Your task to perform on an android device: check out phone information Image 0: 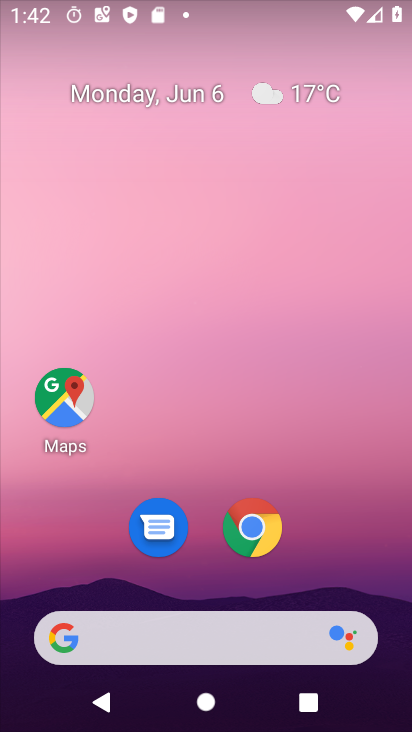
Step 0: drag from (222, 721) to (228, 43)
Your task to perform on an android device: check out phone information Image 1: 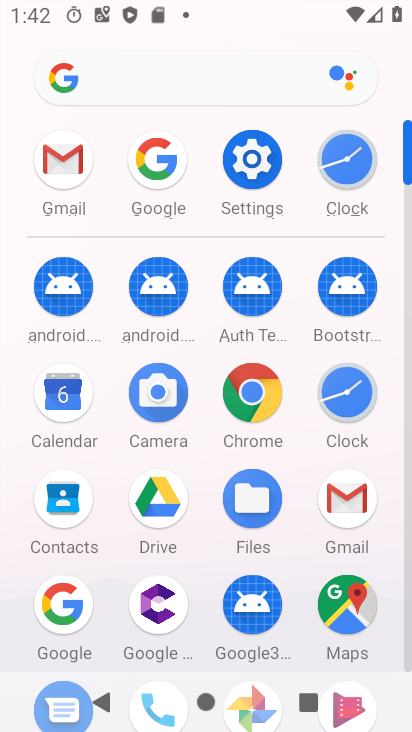
Step 1: click (250, 167)
Your task to perform on an android device: check out phone information Image 2: 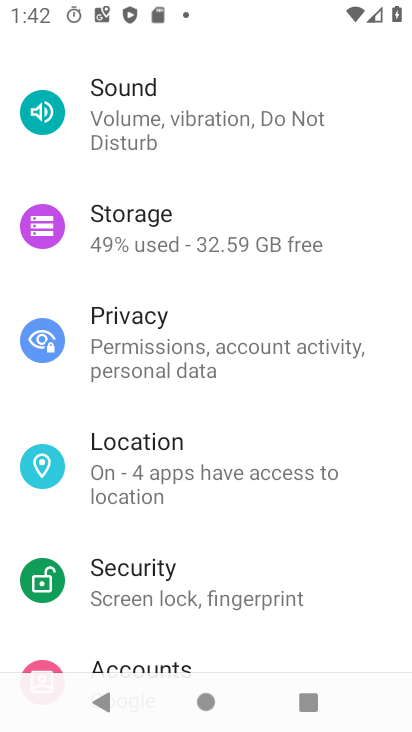
Step 2: drag from (157, 647) to (169, 207)
Your task to perform on an android device: check out phone information Image 3: 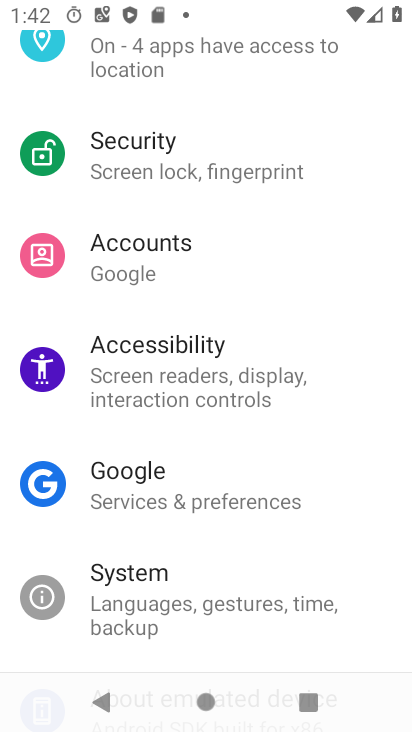
Step 3: drag from (185, 649) to (198, 279)
Your task to perform on an android device: check out phone information Image 4: 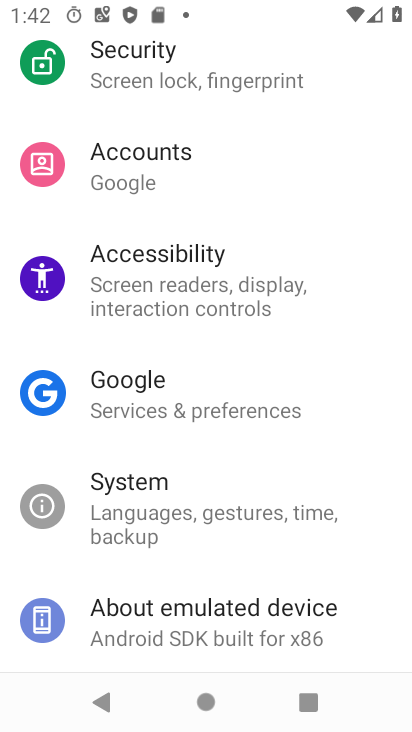
Step 4: drag from (227, 656) to (230, 231)
Your task to perform on an android device: check out phone information Image 5: 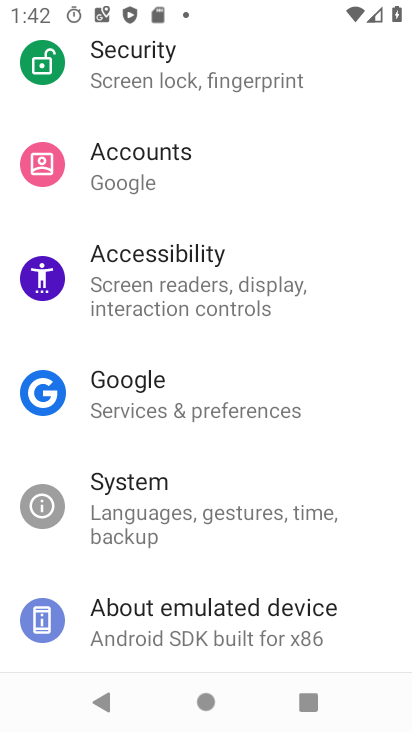
Step 5: click (201, 617)
Your task to perform on an android device: check out phone information Image 6: 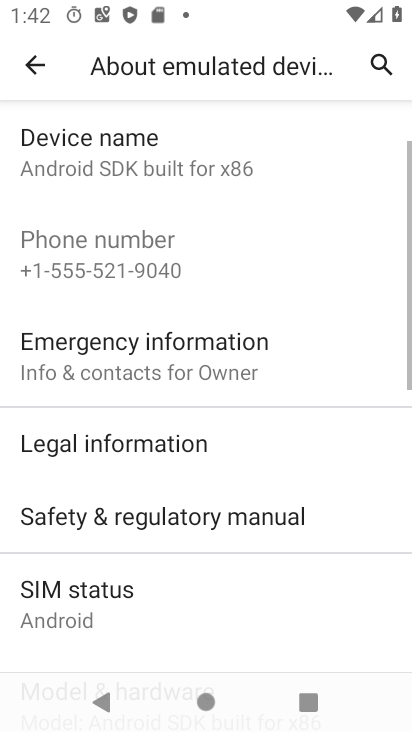
Step 6: task complete